Your task to perform on an android device: change your default location settings in chrome Image 0: 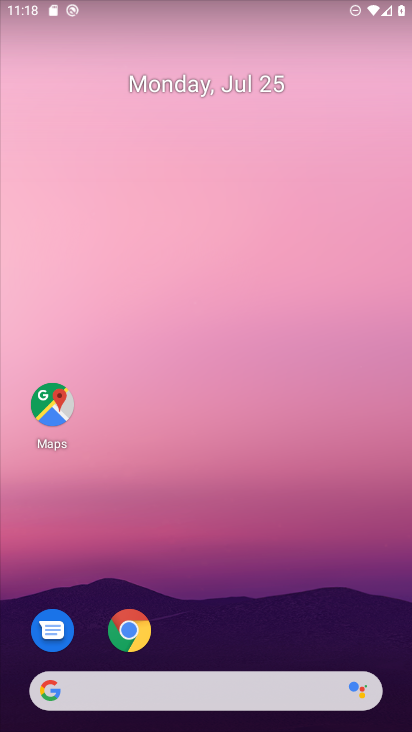
Step 0: click (132, 636)
Your task to perform on an android device: change your default location settings in chrome Image 1: 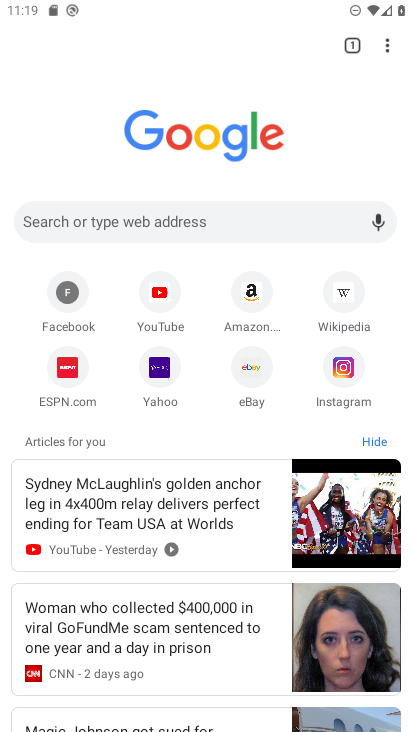
Step 1: click (389, 46)
Your task to perform on an android device: change your default location settings in chrome Image 2: 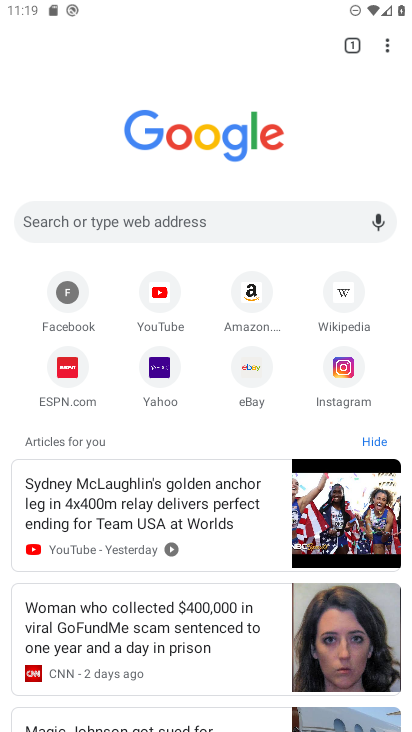
Step 2: click (389, 46)
Your task to perform on an android device: change your default location settings in chrome Image 3: 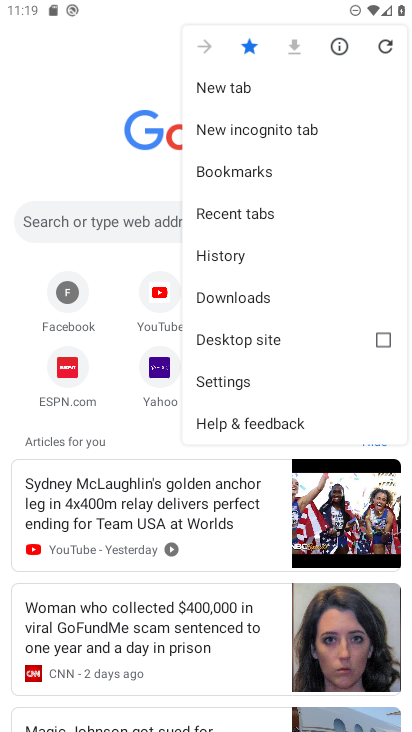
Step 3: click (235, 382)
Your task to perform on an android device: change your default location settings in chrome Image 4: 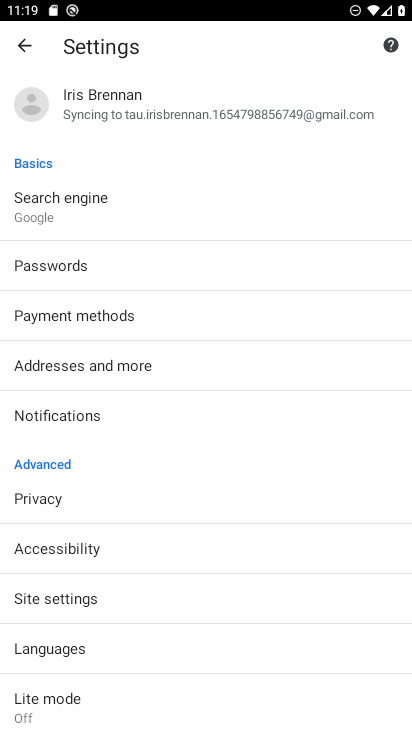
Step 4: click (78, 601)
Your task to perform on an android device: change your default location settings in chrome Image 5: 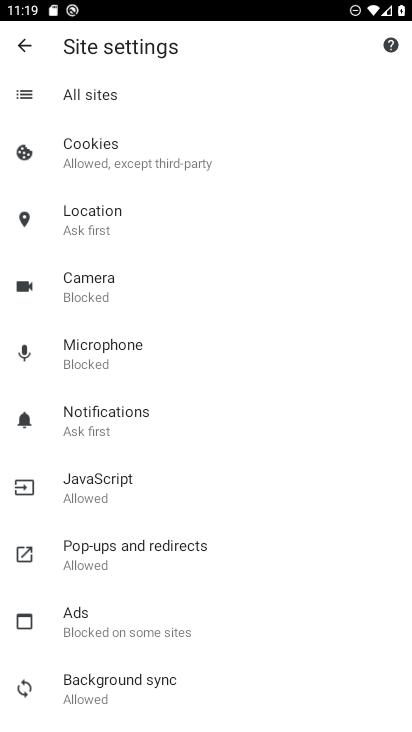
Step 5: click (88, 222)
Your task to perform on an android device: change your default location settings in chrome Image 6: 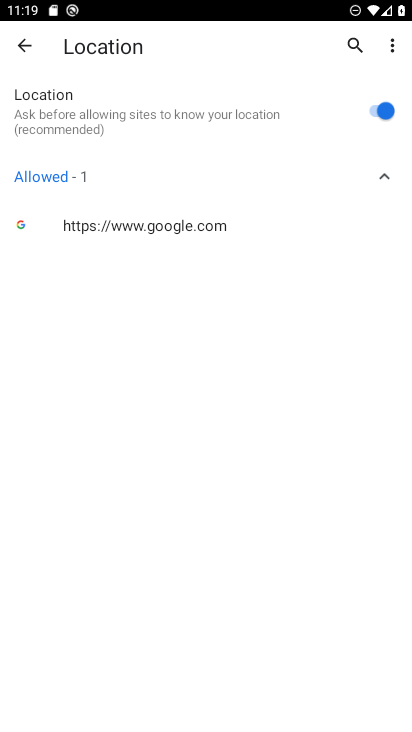
Step 6: click (378, 115)
Your task to perform on an android device: change your default location settings in chrome Image 7: 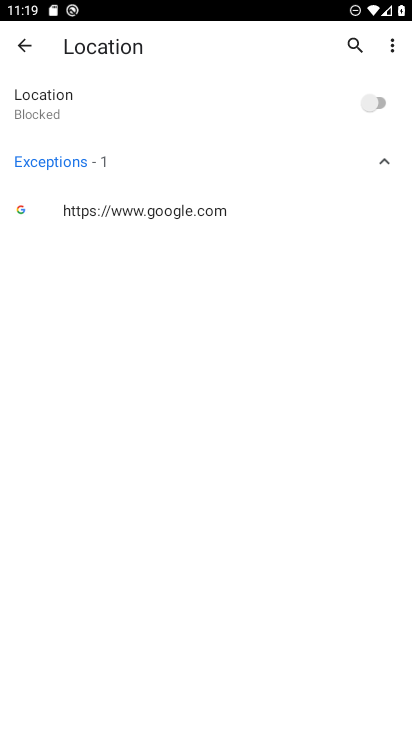
Step 7: task complete